Your task to perform on an android device: Is it going to rain tomorrow? Image 0: 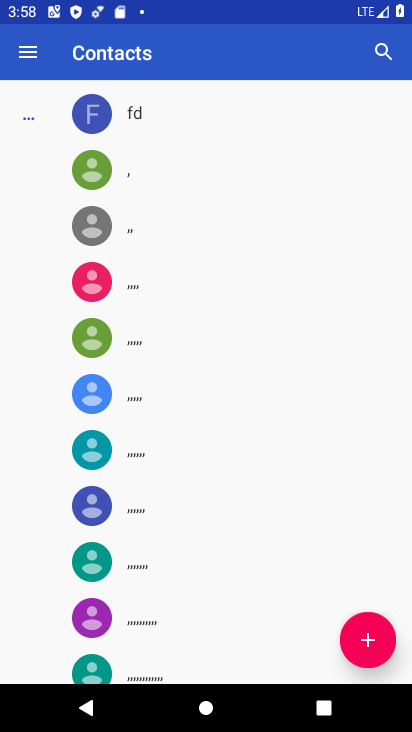
Step 0: press home button
Your task to perform on an android device: Is it going to rain tomorrow? Image 1: 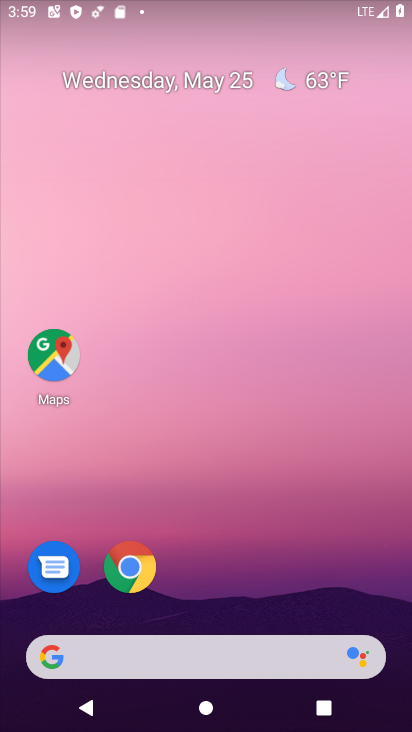
Step 1: drag from (233, 594) to (330, 85)
Your task to perform on an android device: Is it going to rain tomorrow? Image 2: 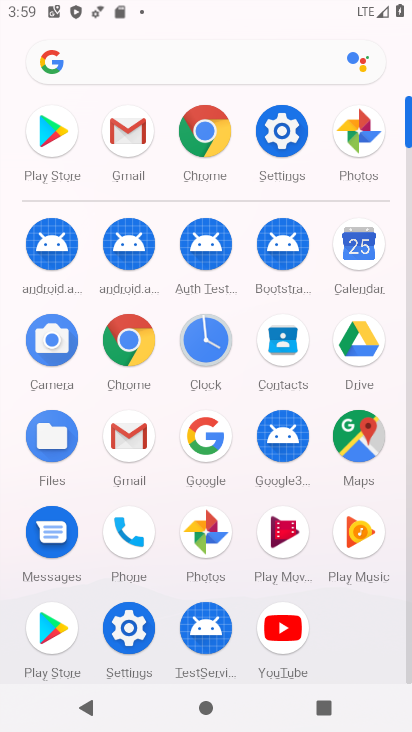
Step 2: click (119, 341)
Your task to perform on an android device: Is it going to rain tomorrow? Image 3: 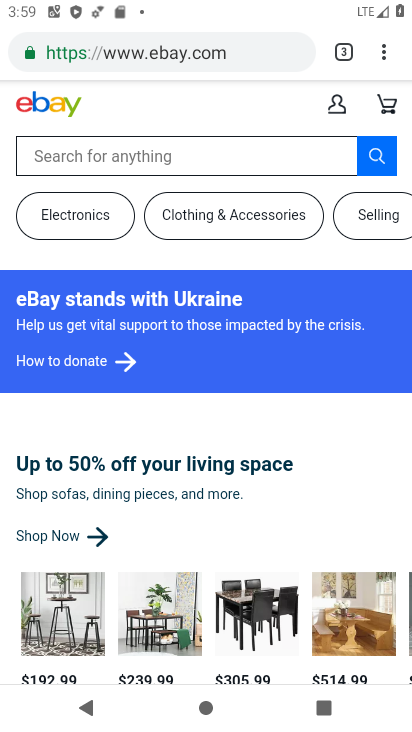
Step 3: click (167, 56)
Your task to perform on an android device: Is it going to rain tomorrow? Image 4: 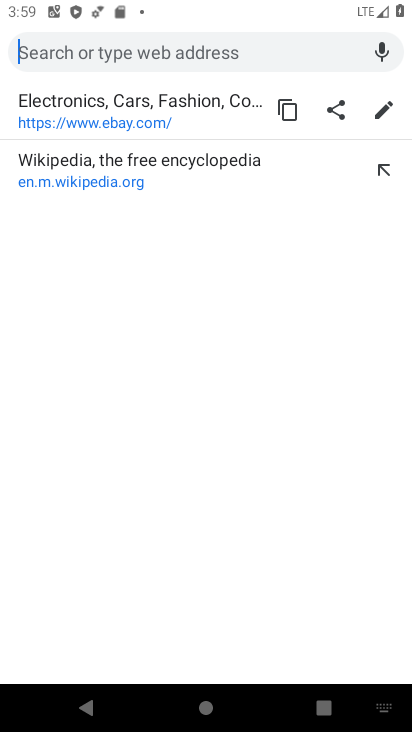
Step 4: type "Is it going to rain tomorrow?"
Your task to perform on an android device: Is it going to rain tomorrow? Image 5: 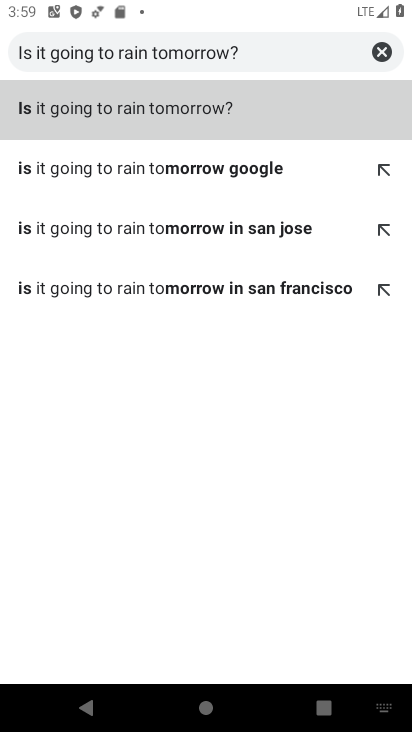
Step 5: click (204, 106)
Your task to perform on an android device: Is it going to rain tomorrow? Image 6: 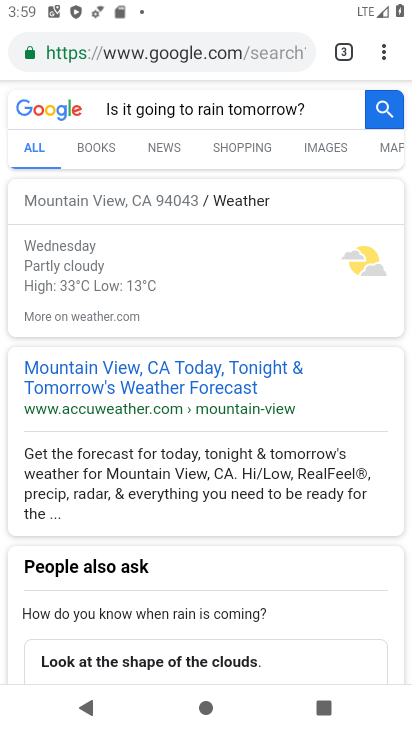
Step 6: task complete